Your task to perform on an android device: find snoozed emails in the gmail app Image 0: 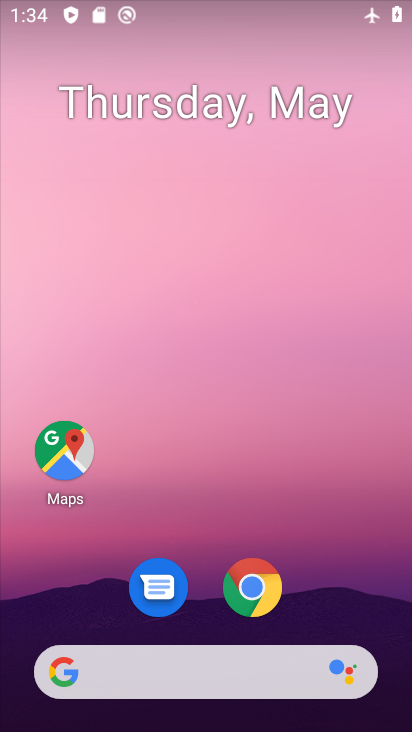
Step 0: drag from (327, 567) to (188, 120)
Your task to perform on an android device: find snoozed emails in the gmail app Image 1: 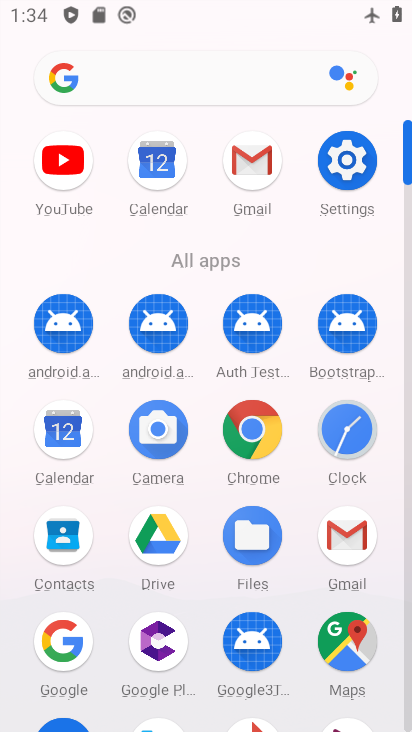
Step 1: click (243, 166)
Your task to perform on an android device: find snoozed emails in the gmail app Image 2: 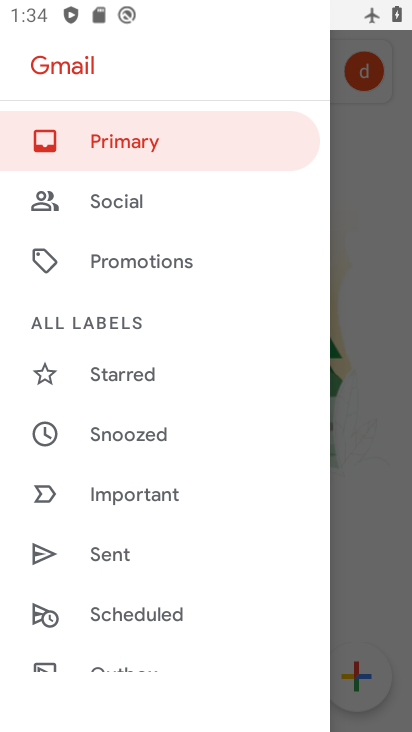
Step 2: drag from (186, 538) to (162, 244)
Your task to perform on an android device: find snoozed emails in the gmail app Image 3: 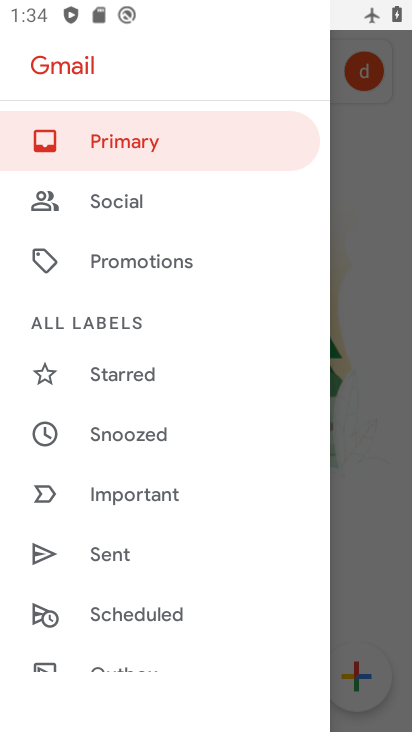
Step 3: drag from (101, 583) to (119, 261)
Your task to perform on an android device: find snoozed emails in the gmail app Image 4: 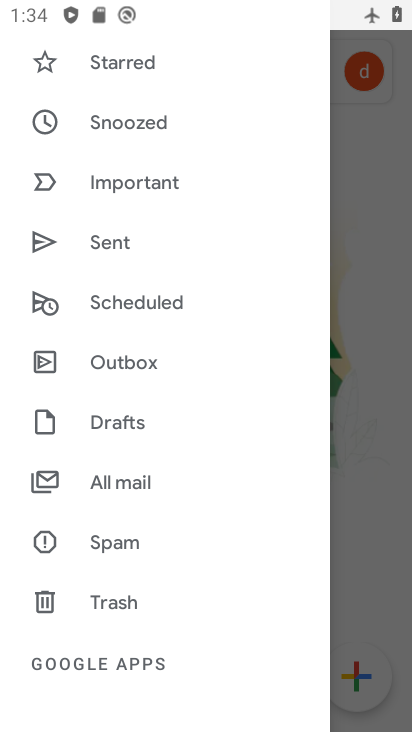
Step 4: drag from (140, 572) to (148, 206)
Your task to perform on an android device: find snoozed emails in the gmail app Image 5: 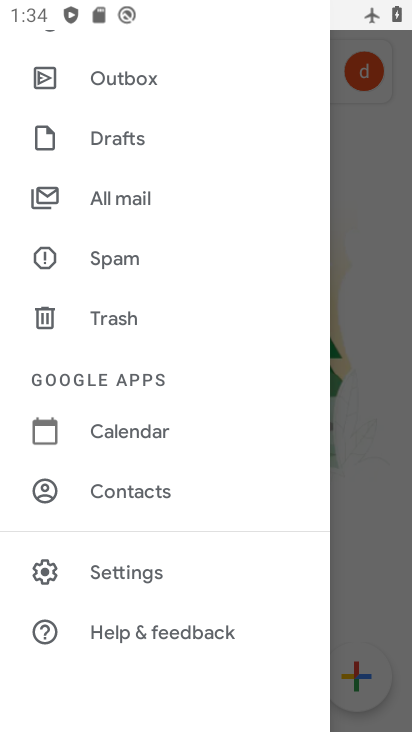
Step 5: drag from (200, 209) to (231, 601)
Your task to perform on an android device: find snoozed emails in the gmail app Image 6: 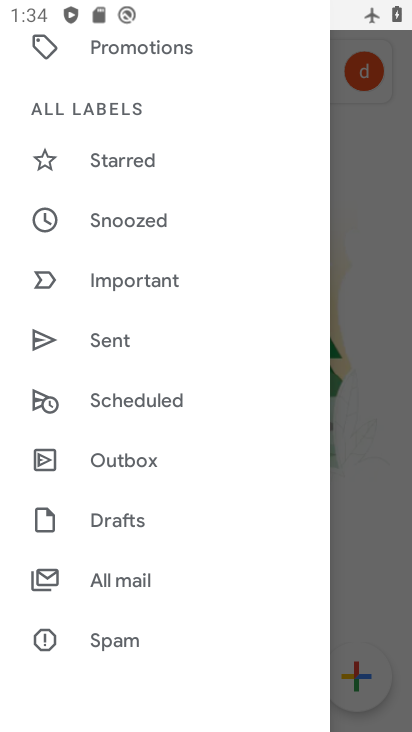
Step 6: click (102, 220)
Your task to perform on an android device: find snoozed emails in the gmail app Image 7: 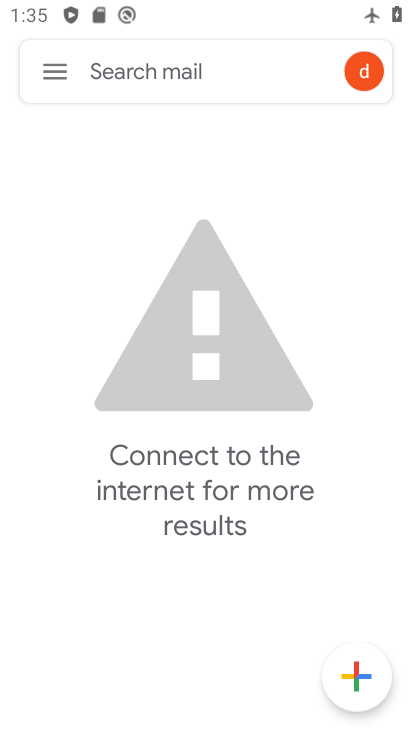
Step 7: task complete